Your task to perform on an android device: star an email in the gmail app Image 0: 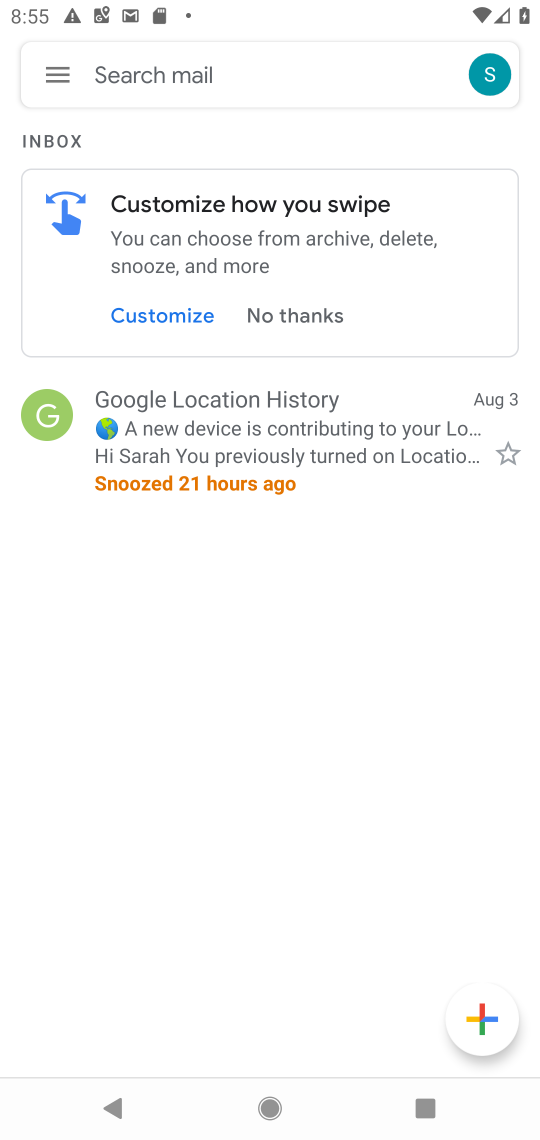
Step 0: press home button
Your task to perform on an android device: star an email in the gmail app Image 1: 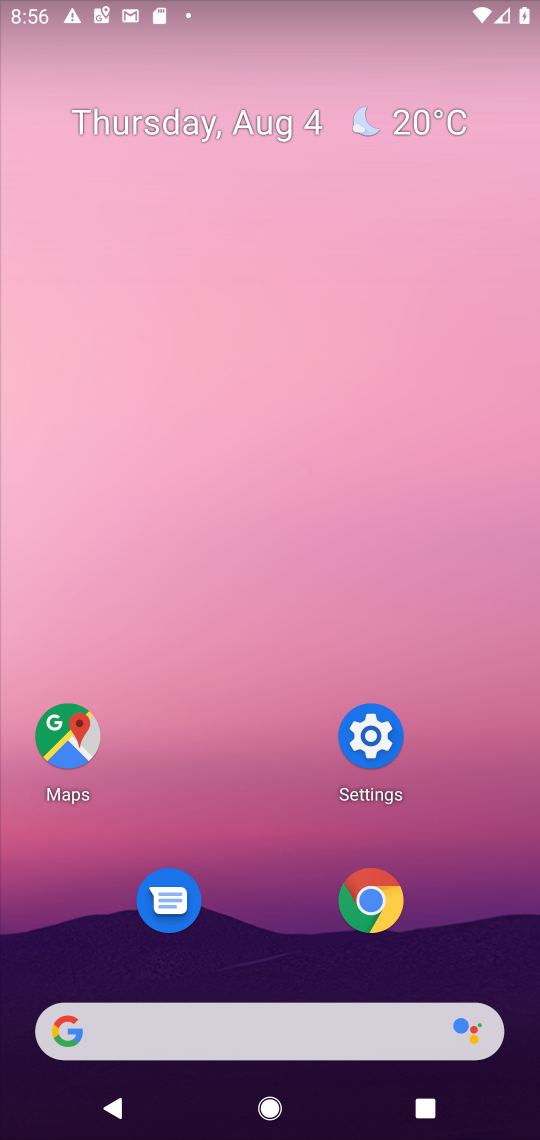
Step 1: drag from (249, 1024) to (307, 379)
Your task to perform on an android device: star an email in the gmail app Image 2: 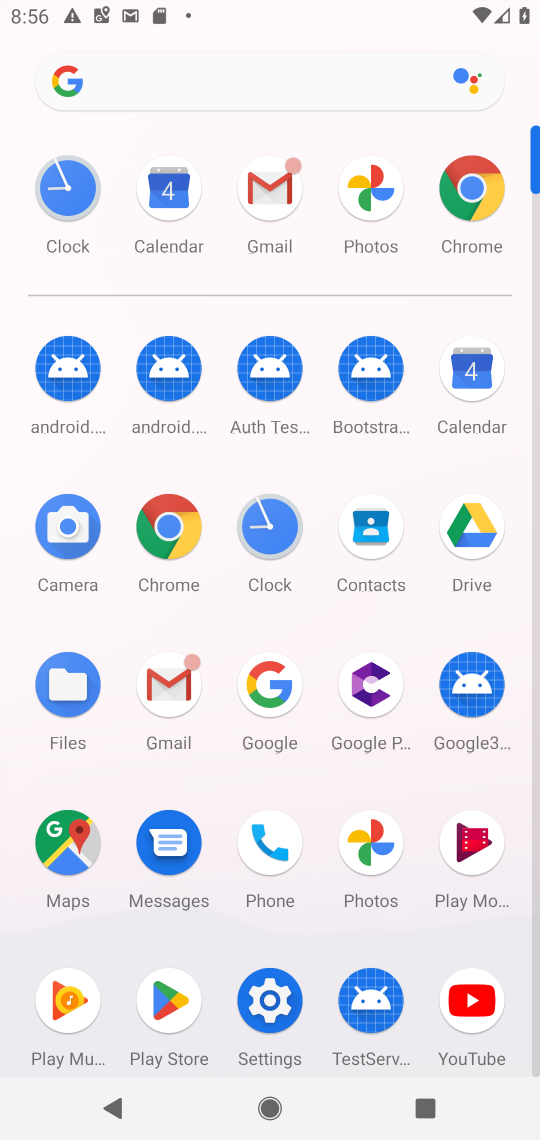
Step 2: click (261, 194)
Your task to perform on an android device: star an email in the gmail app Image 3: 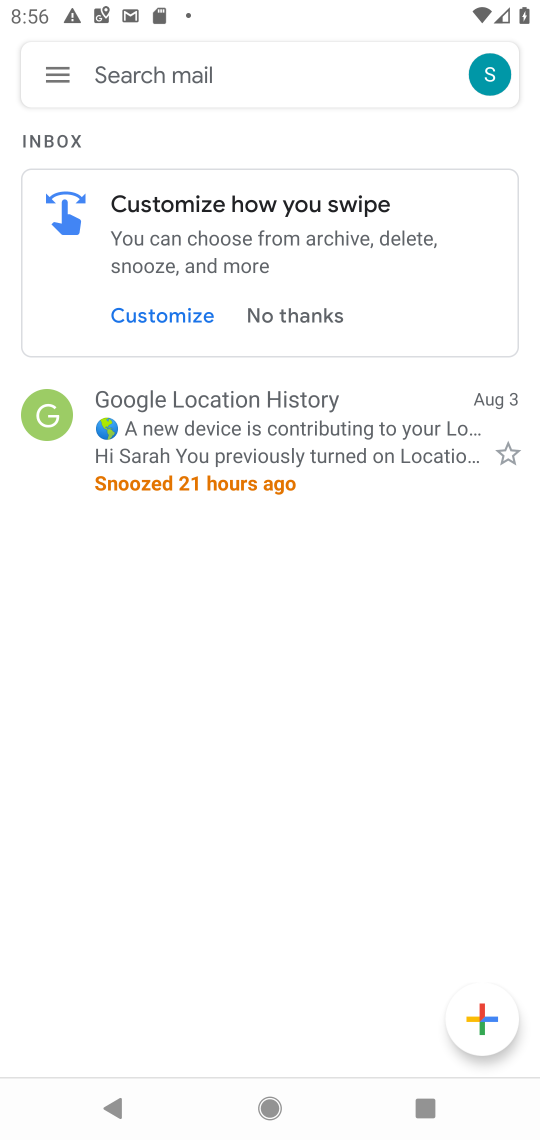
Step 3: click (49, 415)
Your task to perform on an android device: star an email in the gmail app Image 4: 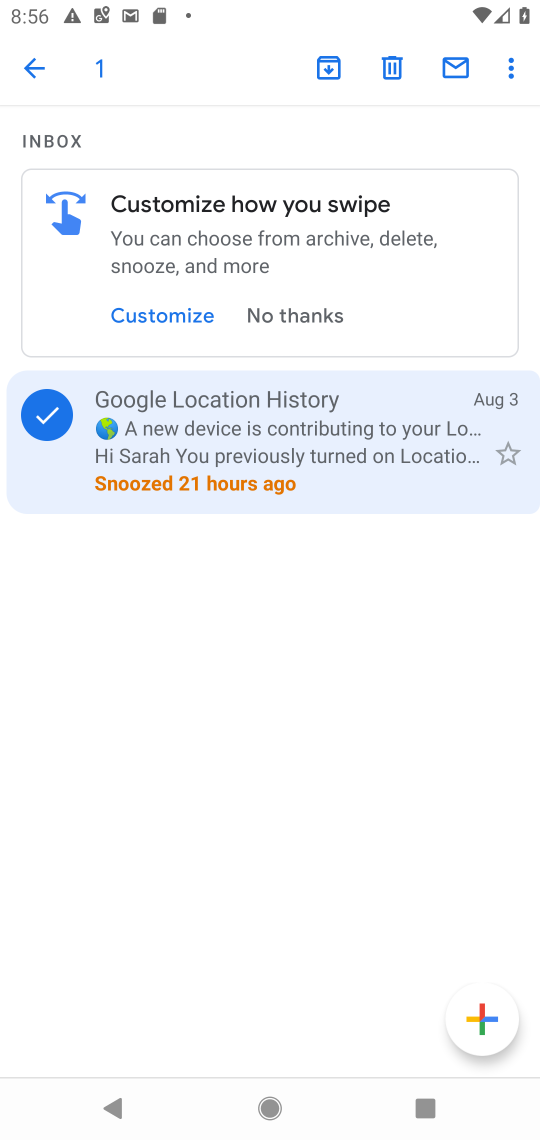
Step 4: click (513, 63)
Your task to perform on an android device: star an email in the gmail app Image 5: 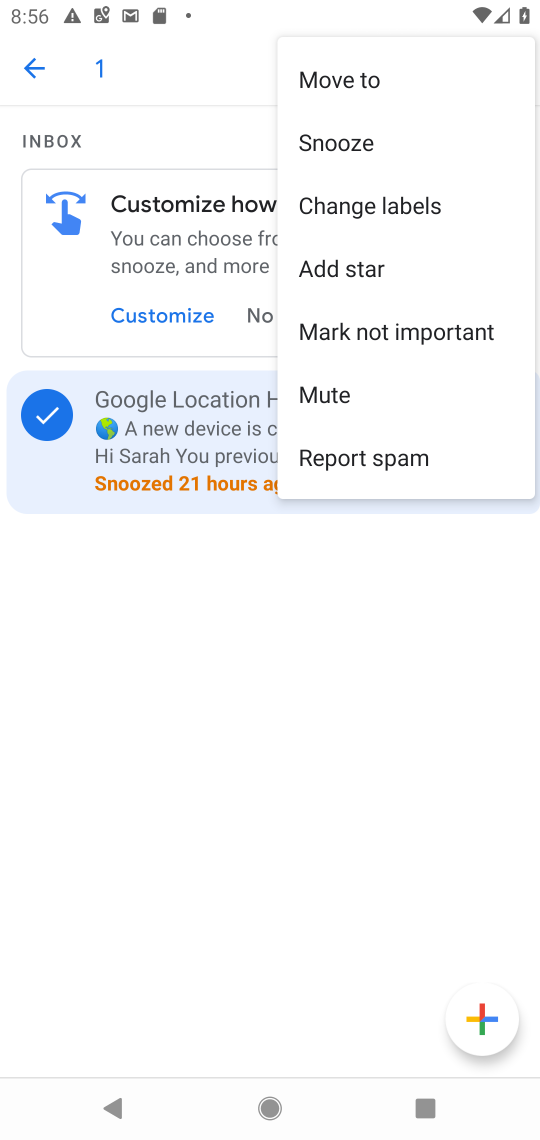
Step 5: click (349, 265)
Your task to perform on an android device: star an email in the gmail app Image 6: 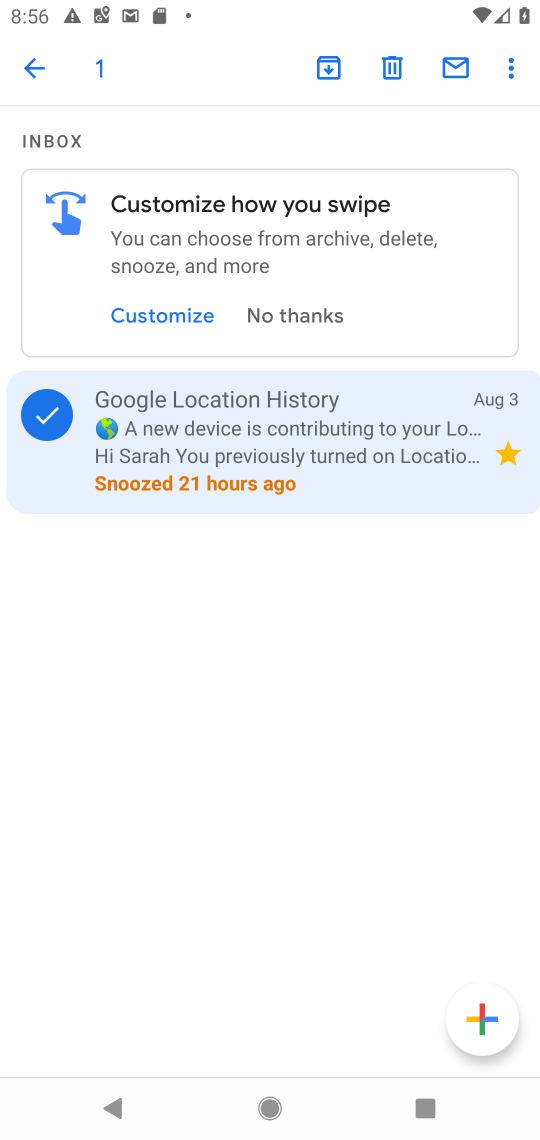
Step 6: click (51, 424)
Your task to perform on an android device: star an email in the gmail app Image 7: 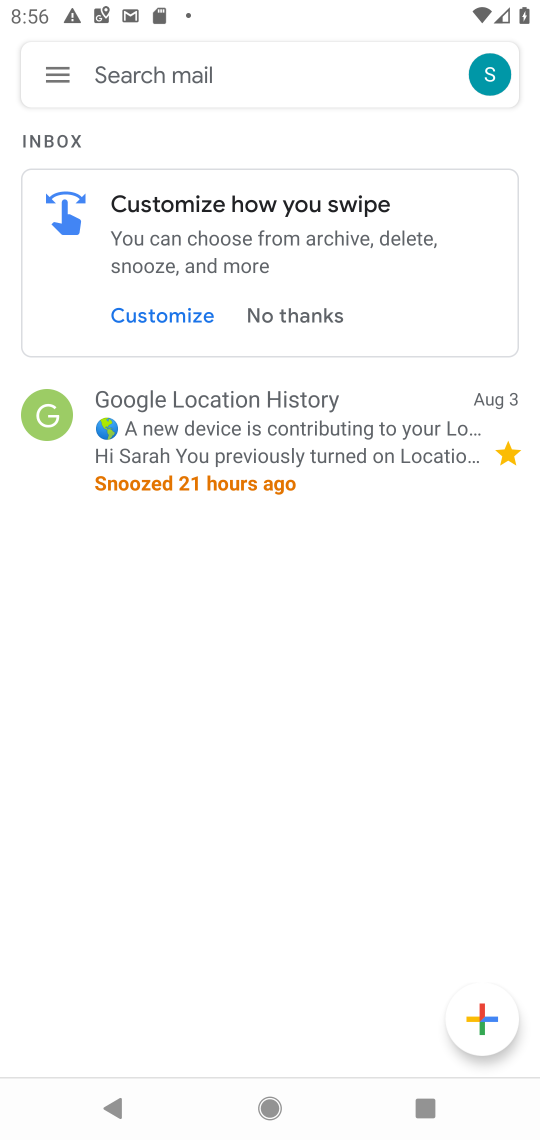
Step 7: task complete